Your task to perform on an android device: Go to Google maps Image 0: 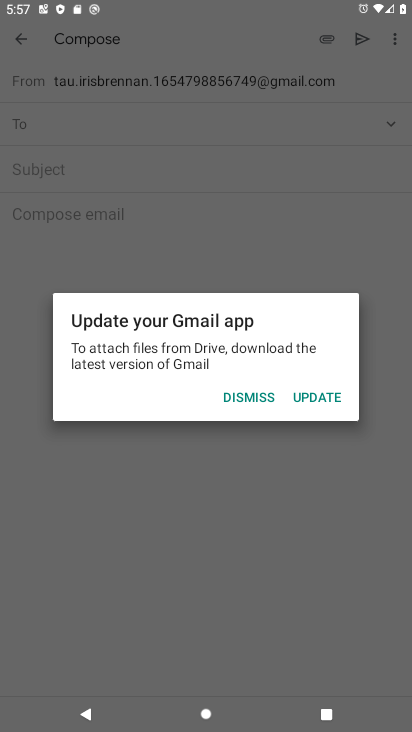
Step 0: press home button
Your task to perform on an android device: Go to Google maps Image 1: 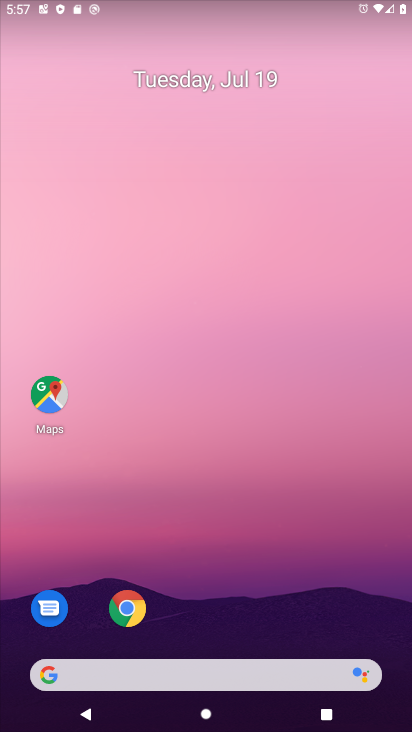
Step 1: click (219, 211)
Your task to perform on an android device: Go to Google maps Image 2: 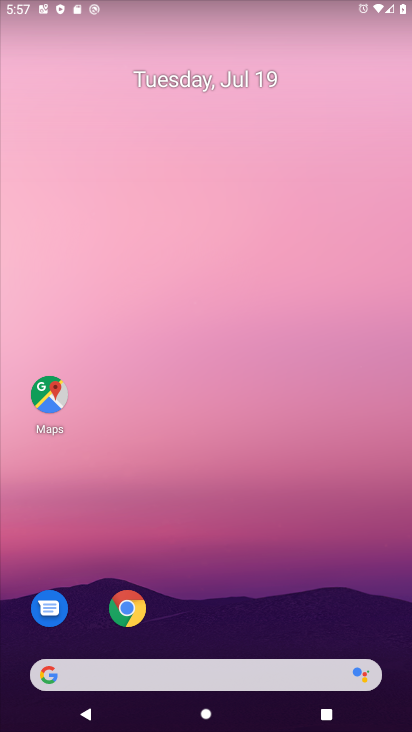
Step 2: drag from (195, 638) to (228, 48)
Your task to perform on an android device: Go to Google maps Image 3: 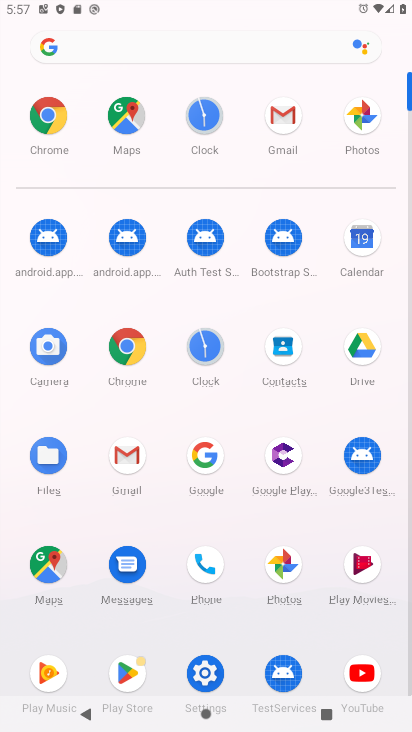
Step 3: click (58, 565)
Your task to perform on an android device: Go to Google maps Image 4: 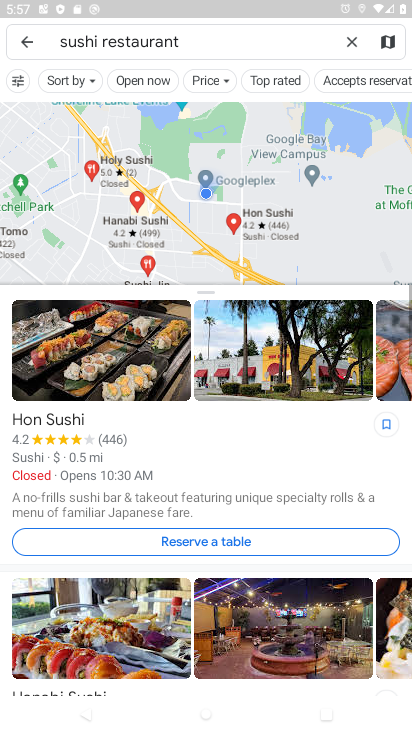
Step 4: task complete